Your task to perform on an android device: check data usage Image 0: 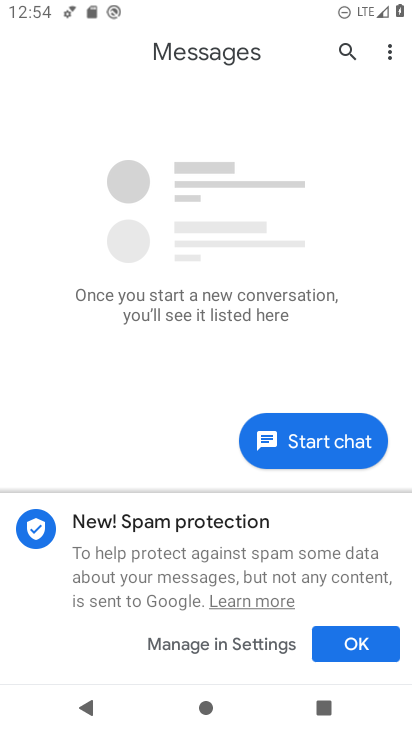
Step 0: press home button
Your task to perform on an android device: check data usage Image 1: 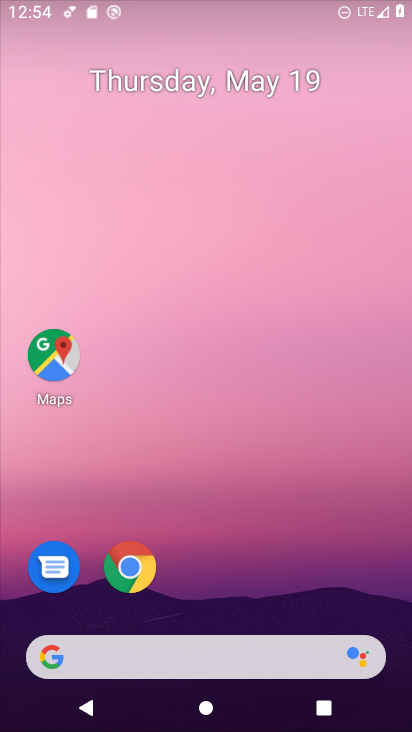
Step 1: drag from (247, 528) to (250, 0)
Your task to perform on an android device: check data usage Image 2: 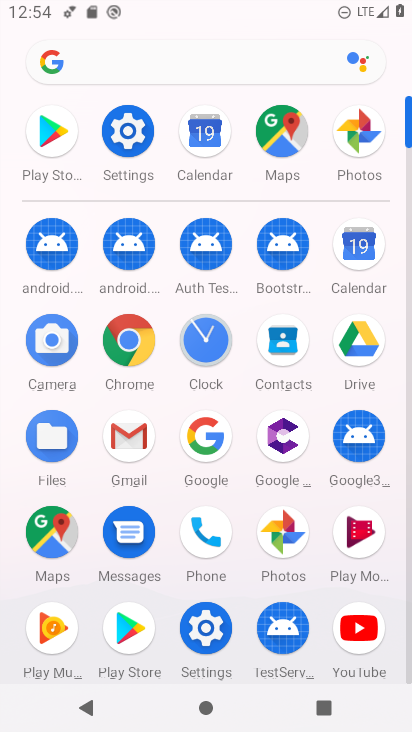
Step 2: click (124, 136)
Your task to perform on an android device: check data usage Image 3: 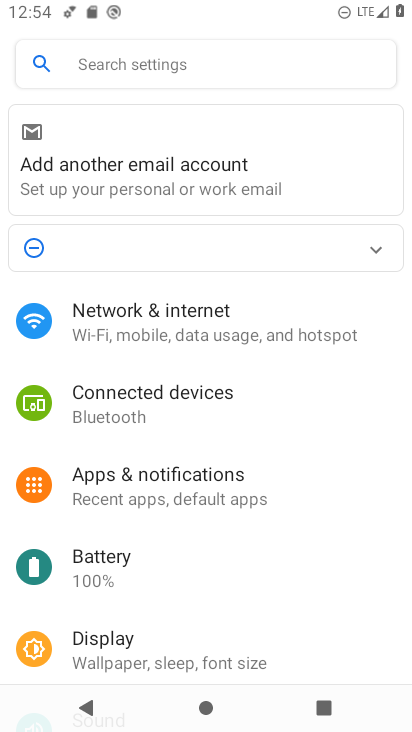
Step 3: click (206, 326)
Your task to perform on an android device: check data usage Image 4: 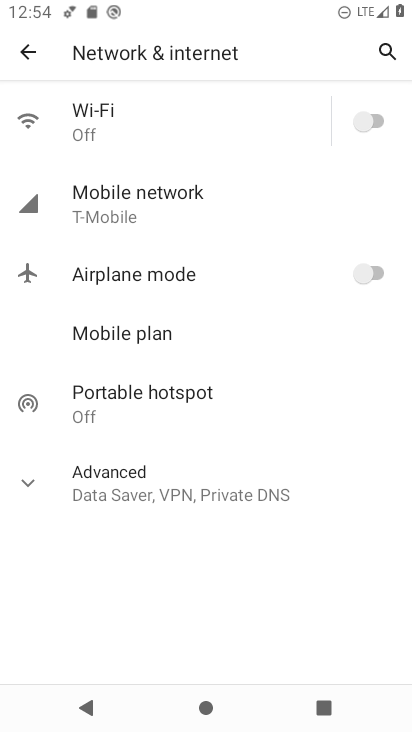
Step 4: click (254, 204)
Your task to perform on an android device: check data usage Image 5: 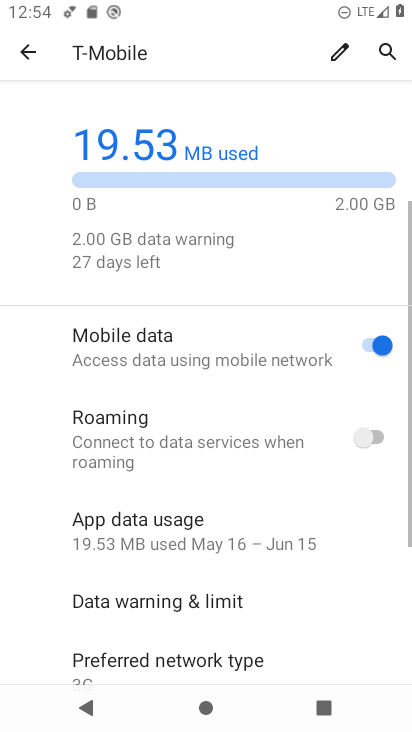
Step 5: task complete